Your task to perform on an android device: Go to Yahoo.com Image 0: 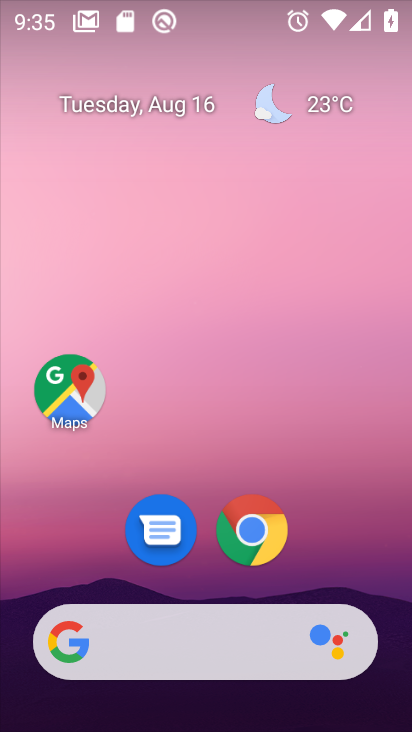
Step 0: drag from (348, 510) to (337, 114)
Your task to perform on an android device: Go to Yahoo.com Image 1: 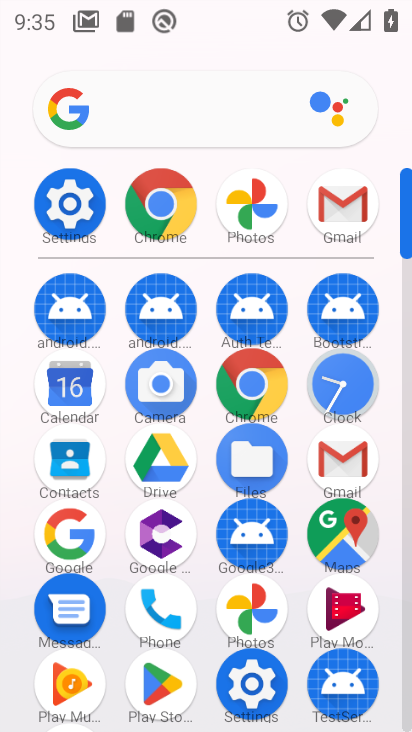
Step 1: click (250, 384)
Your task to perform on an android device: Go to Yahoo.com Image 2: 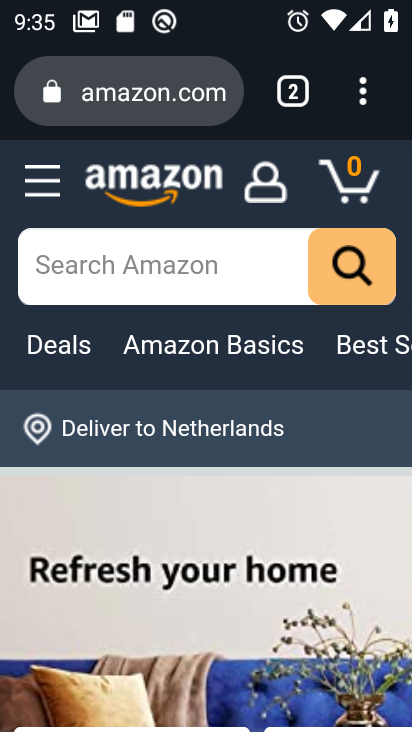
Step 2: click (187, 98)
Your task to perform on an android device: Go to Yahoo.com Image 3: 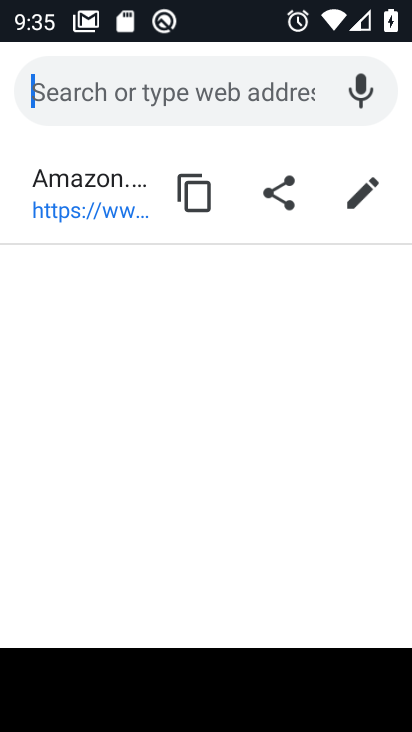
Step 3: type "yahoo.com"
Your task to perform on an android device: Go to Yahoo.com Image 4: 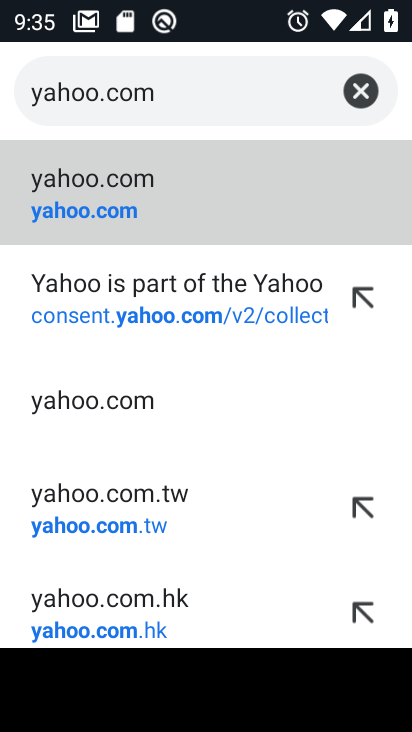
Step 4: click (130, 216)
Your task to perform on an android device: Go to Yahoo.com Image 5: 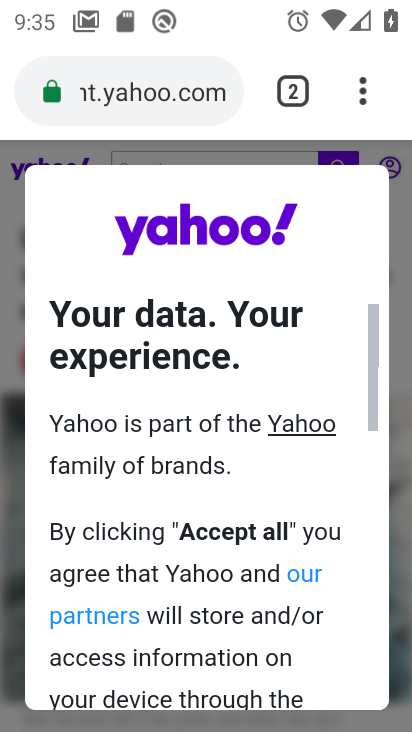
Step 5: task complete